Your task to perform on an android device: set default search engine in the chrome app Image 0: 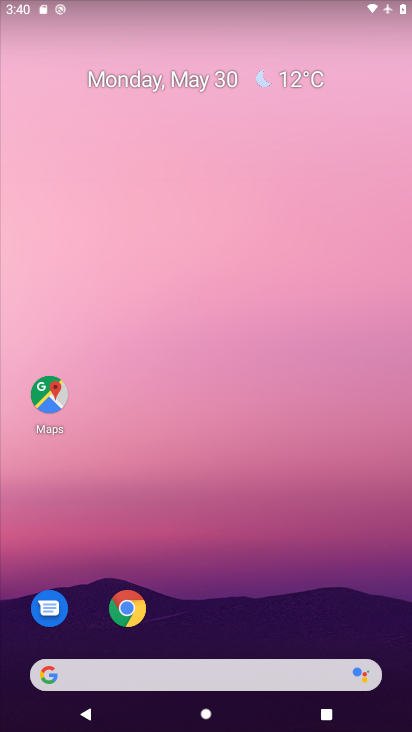
Step 0: drag from (269, 403) to (131, 17)
Your task to perform on an android device: set default search engine in the chrome app Image 1: 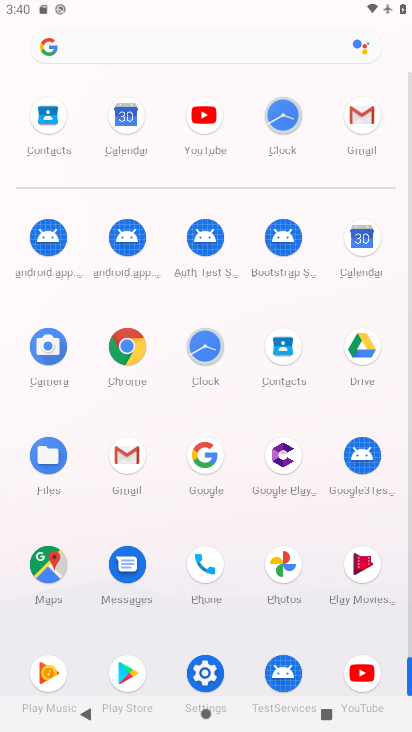
Step 1: click (119, 346)
Your task to perform on an android device: set default search engine in the chrome app Image 2: 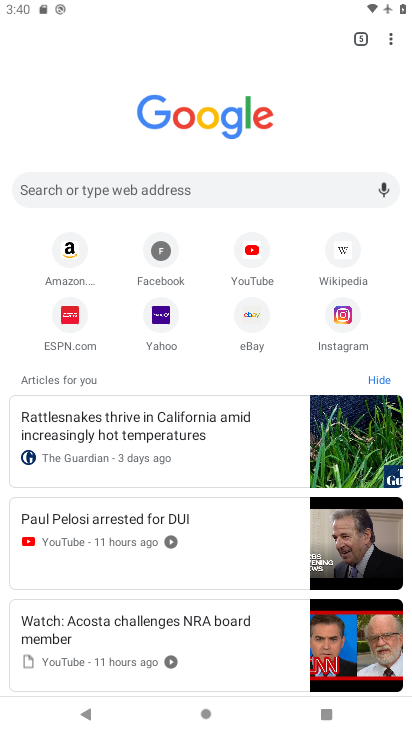
Step 2: click (388, 35)
Your task to perform on an android device: set default search engine in the chrome app Image 3: 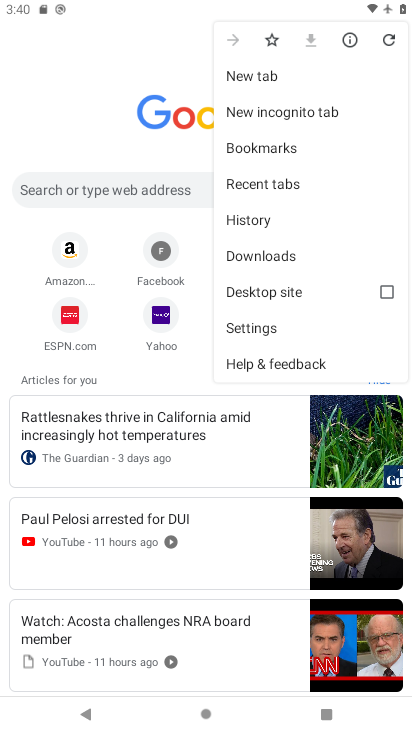
Step 3: click (283, 332)
Your task to perform on an android device: set default search engine in the chrome app Image 4: 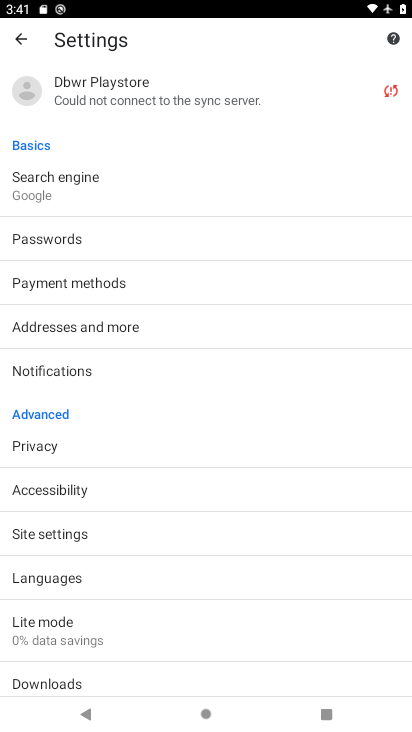
Step 4: click (109, 185)
Your task to perform on an android device: set default search engine in the chrome app Image 5: 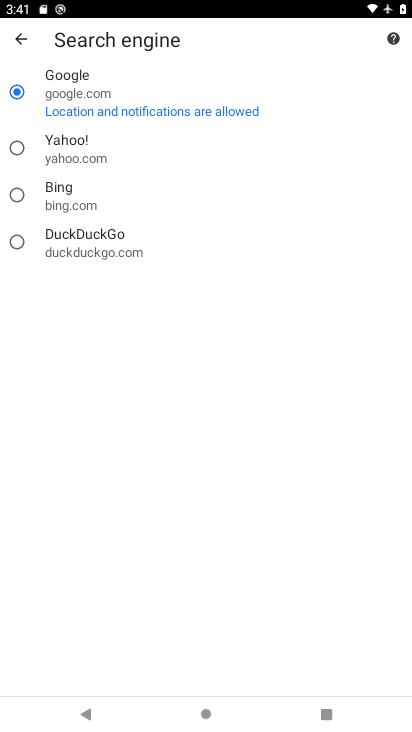
Step 5: click (164, 75)
Your task to perform on an android device: set default search engine in the chrome app Image 6: 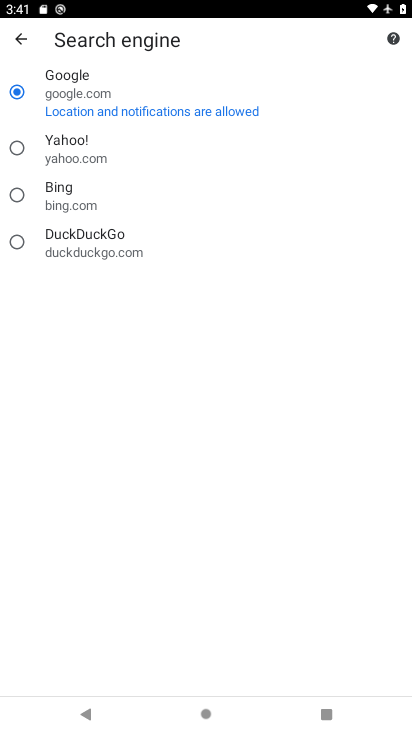
Step 6: task complete